Your task to perform on an android device: Open Android settings Image 0: 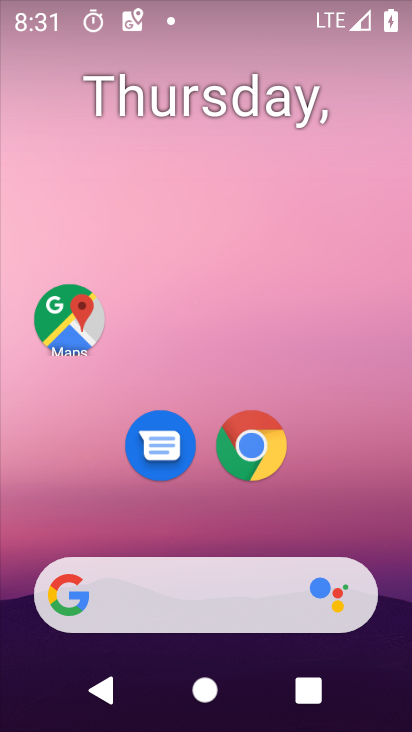
Step 0: drag from (190, 496) to (221, 203)
Your task to perform on an android device: Open Android settings Image 1: 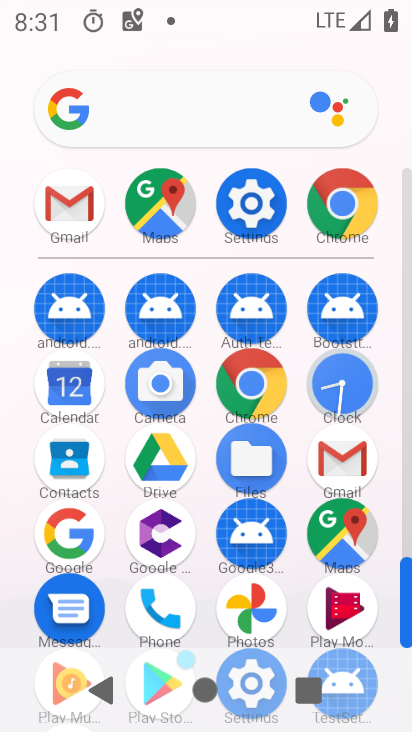
Step 1: drag from (208, 628) to (212, 293)
Your task to perform on an android device: Open Android settings Image 2: 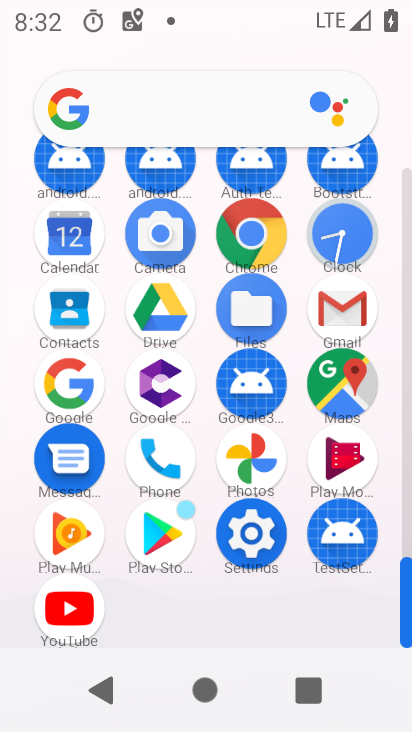
Step 2: click (235, 530)
Your task to perform on an android device: Open Android settings Image 3: 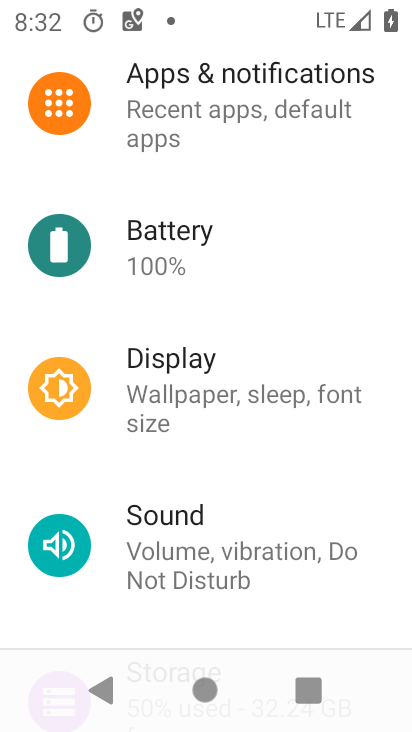
Step 3: drag from (248, 600) to (320, 80)
Your task to perform on an android device: Open Android settings Image 4: 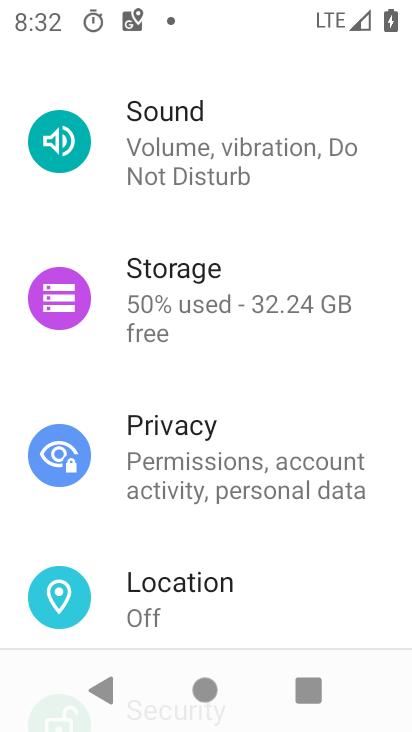
Step 4: drag from (222, 572) to (250, 163)
Your task to perform on an android device: Open Android settings Image 5: 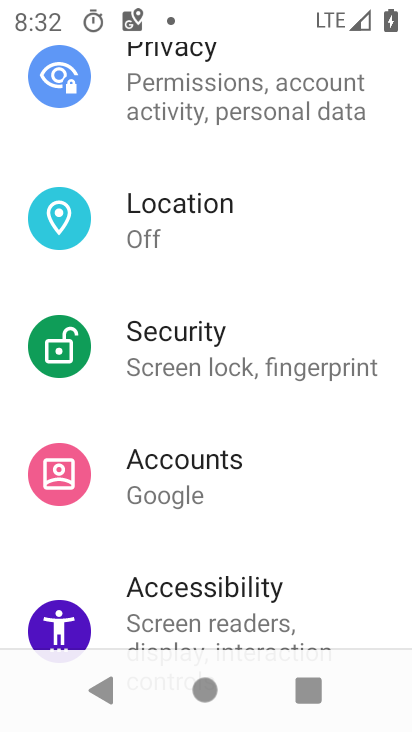
Step 5: drag from (209, 563) to (257, 152)
Your task to perform on an android device: Open Android settings Image 6: 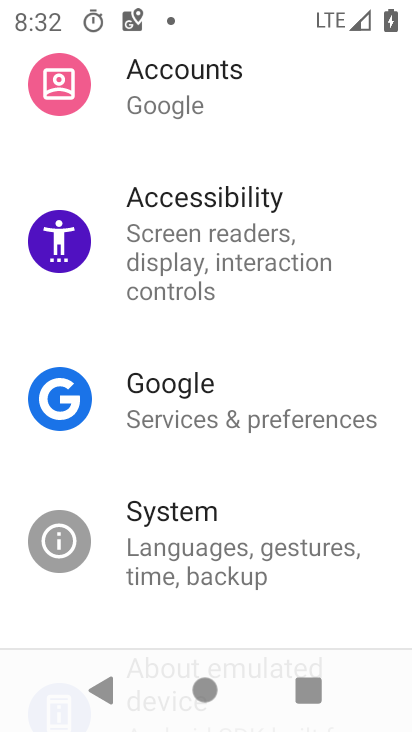
Step 6: drag from (227, 528) to (219, 175)
Your task to perform on an android device: Open Android settings Image 7: 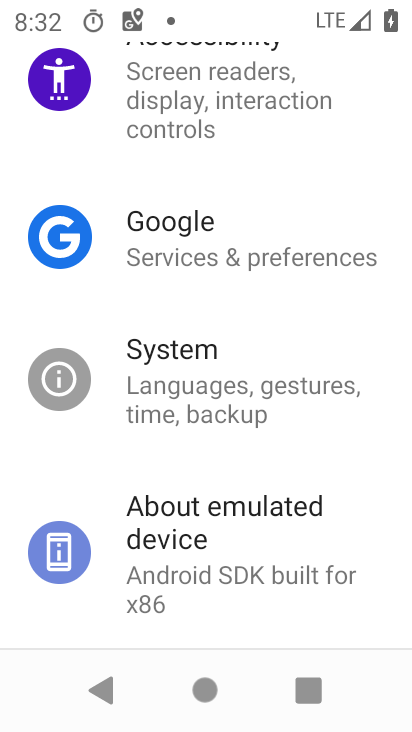
Step 7: click (206, 513)
Your task to perform on an android device: Open Android settings Image 8: 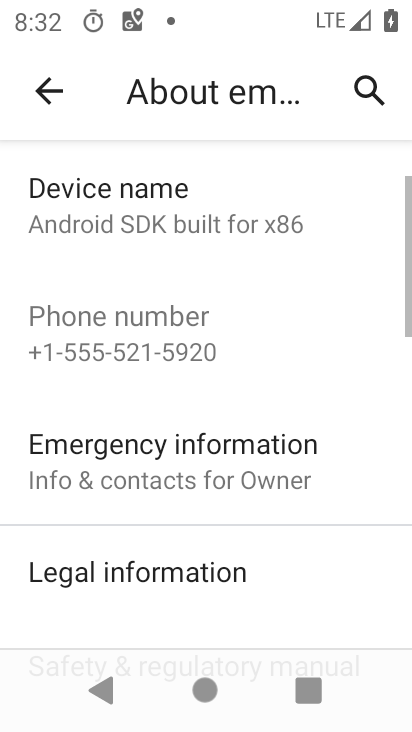
Step 8: drag from (214, 556) to (273, 271)
Your task to perform on an android device: Open Android settings Image 9: 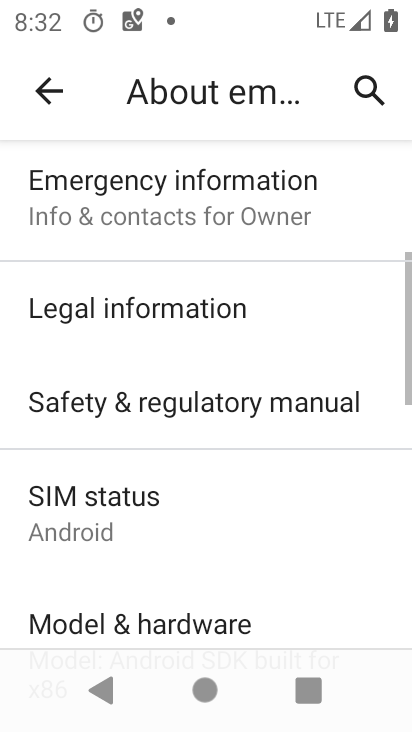
Step 9: drag from (183, 572) to (262, 195)
Your task to perform on an android device: Open Android settings Image 10: 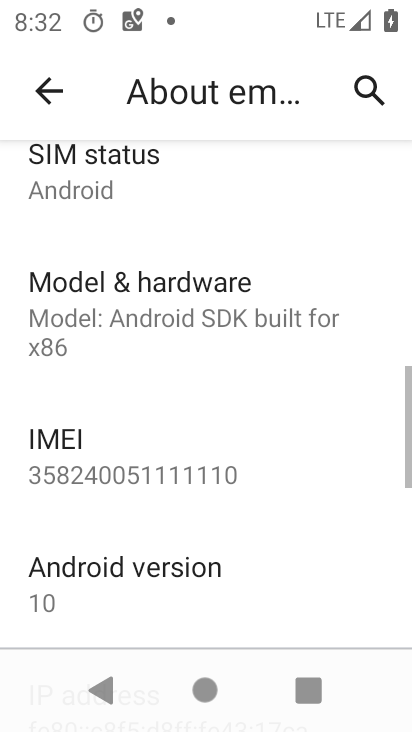
Step 10: drag from (174, 518) to (221, 257)
Your task to perform on an android device: Open Android settings Image 11: 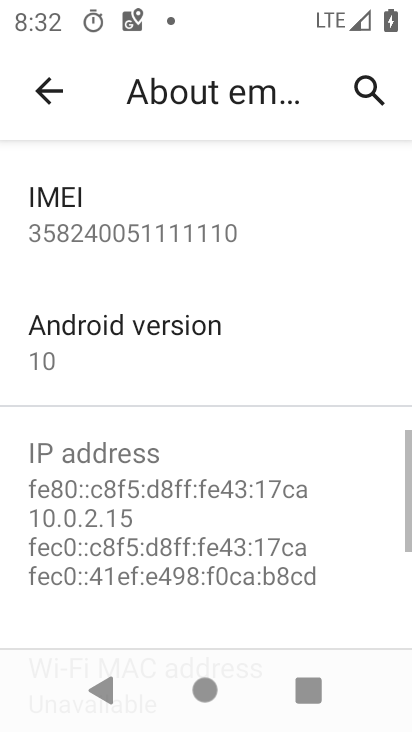
Step 11: click (195, 331)
Your task to perform on an android device: Open Android settings Image 12: 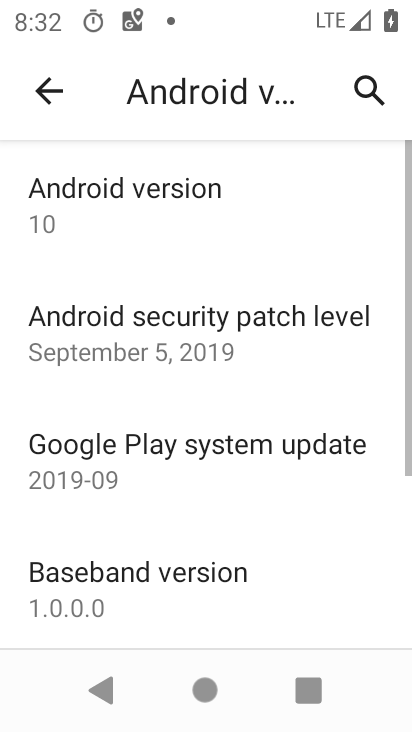
Step 12: task complete